Your task to perform on an android device: Go to Wikipedia Image 0: 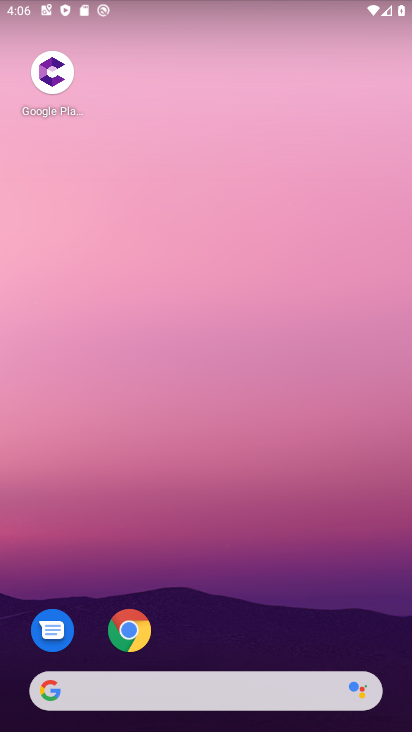
Step 0: click (128, 628)
Your task to perform on an android device: Go to Wikipedia Image 1: 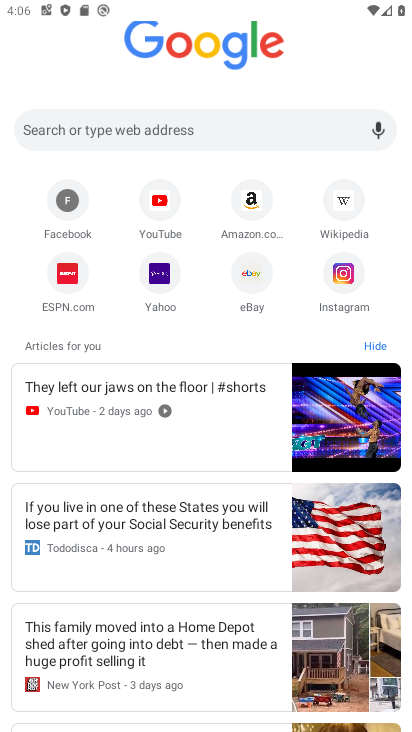
Step 1: click (95, 129)
Your task to perform on an android device: Go to Wikipedia Image 2: 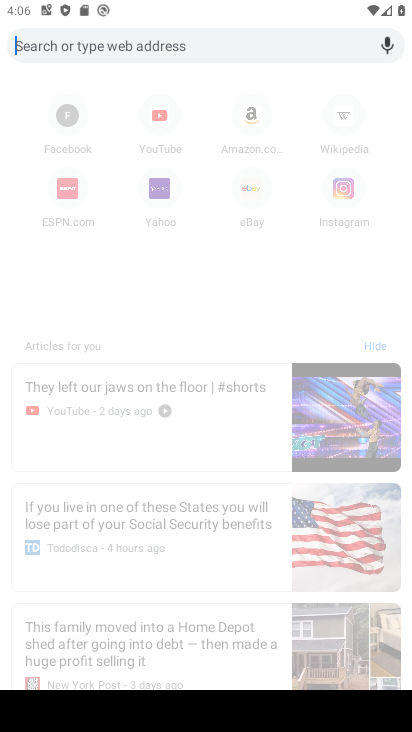
Step 2: type "wikipedia"
Your task to perform on an android device: Go to Wikipedia Image 3: 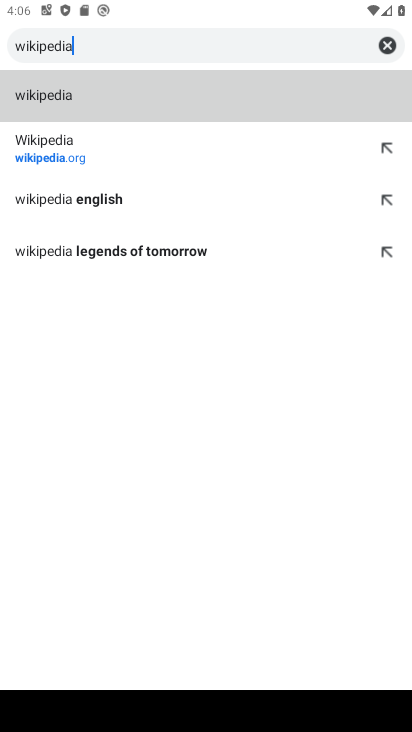
Step 3: click (41, 98)
Your task to perform on an android device: Go to Wikipedia Image 4: 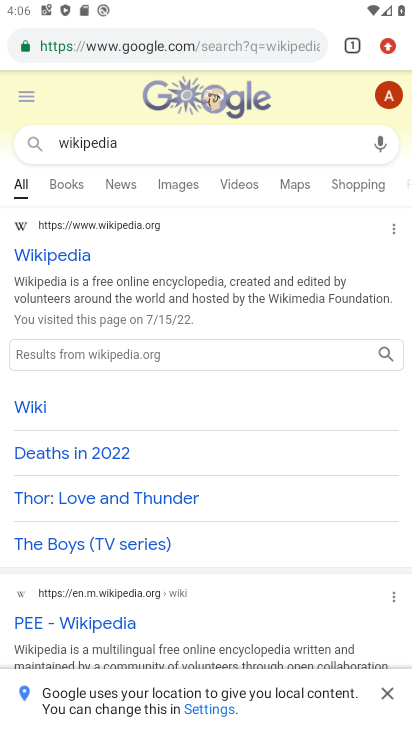
Step 4: click (54, 260)
Your task to perform on an android device: Go to Wikipedia Image 5: 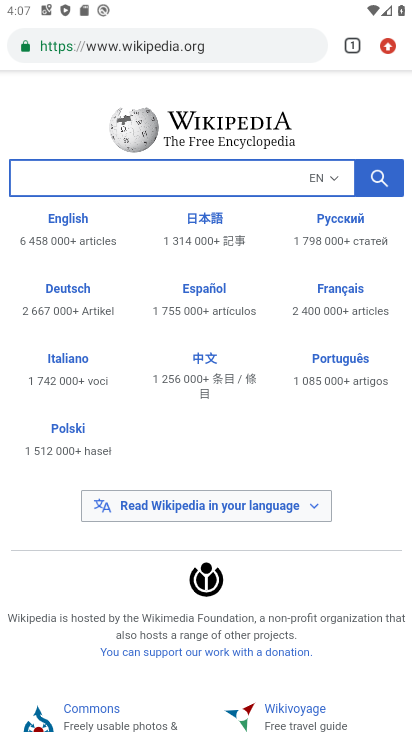
Step 5: task complete